Your task to perform on an android device: open device folders in google photos Image 0: 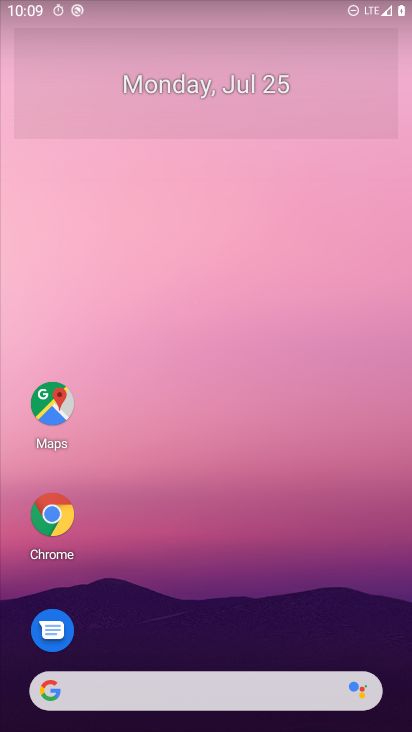
Step 0: drag from (37, 678) to (203, 170)
Your task to perform on an android device: open device folders in google photos Image 1: 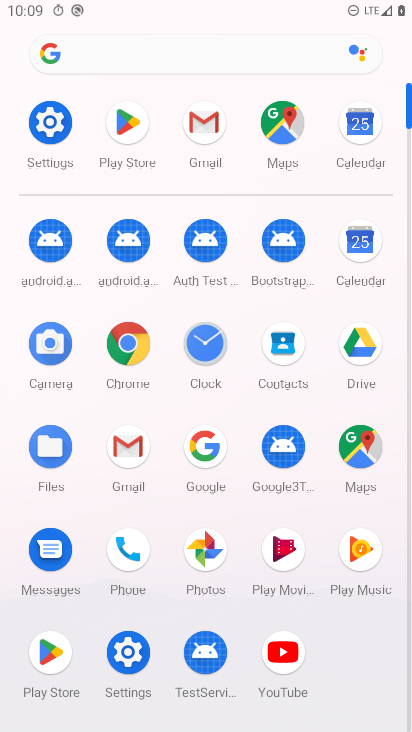
Step 1: click (205, 552)
Your task to perform on an android device: open device folders in google photos Image 2: 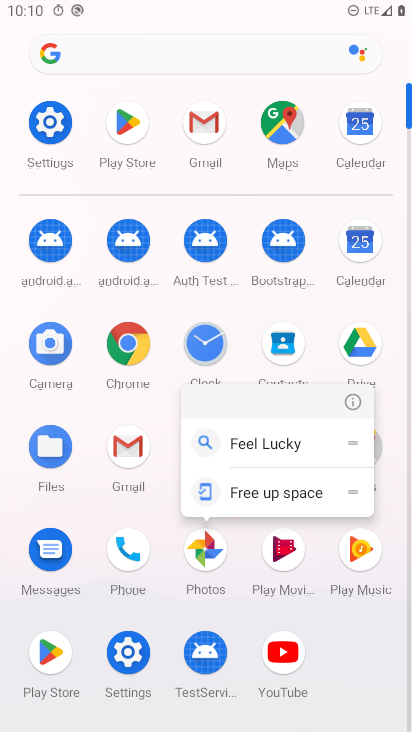
Step 2: click (203, 559)
Your task to perform on an android device: open device folders in google photos Image 3: 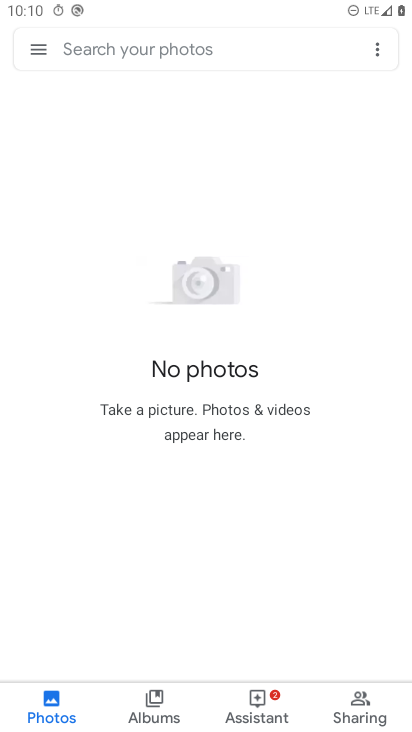
Step 3: click (30, 50)
Your task to perform on an android device: open device folders in google photos Image 4: 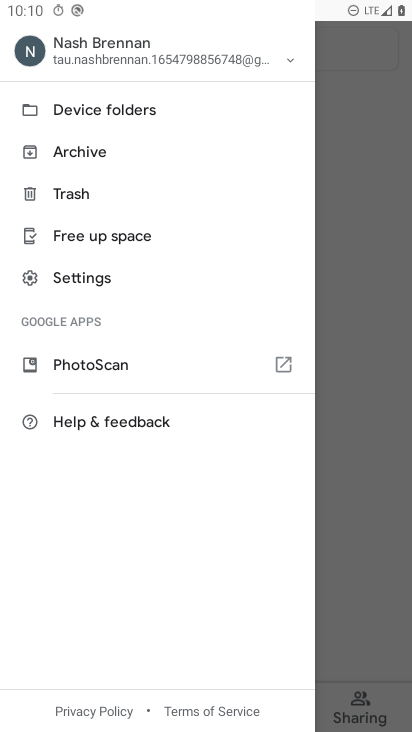
Step 4: click (91, 101)
Your task to perform on an android device: open device folders in google photos Image 5: 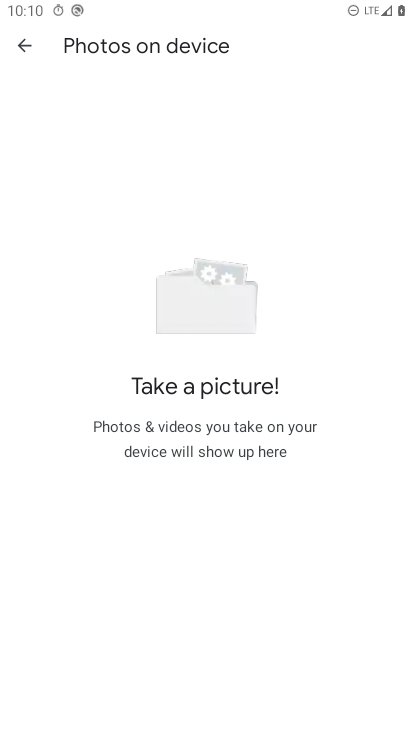
Step 5: task complete